Your task to perform on an android device: Find coffee shops on Maps Image 0: 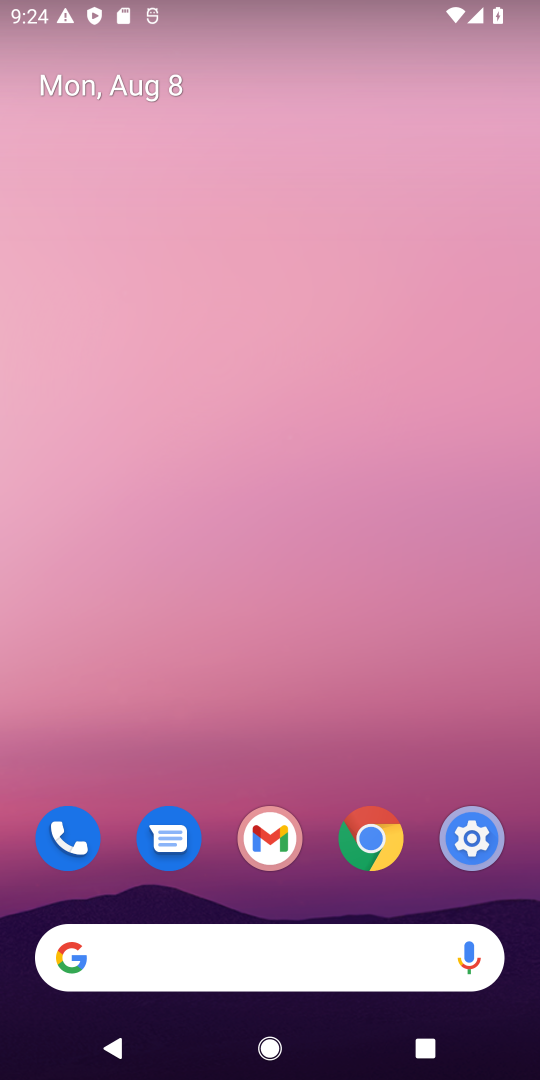
Step 0: press home button
Your task to perform on an android device: Find coffee shops on Maps Image 1: 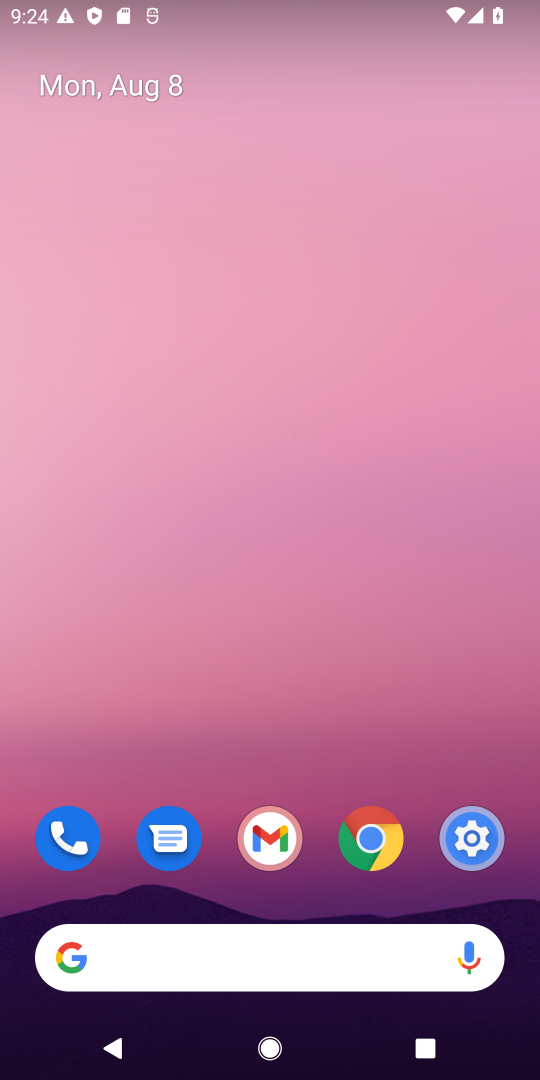
Step 1: drag from (311, 852) to (307, 239)
Your task to perform on an android device: Find coffee shops on Maps Image 2: 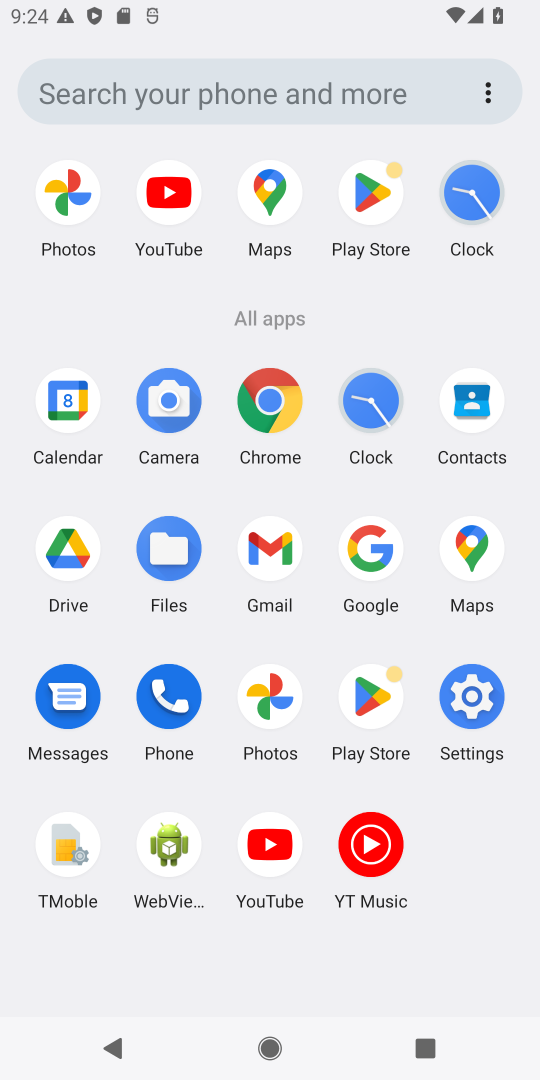
Step 2: click (276, 213)
Your task to perform on an android device: Find coffee shops on Maps Image 3: 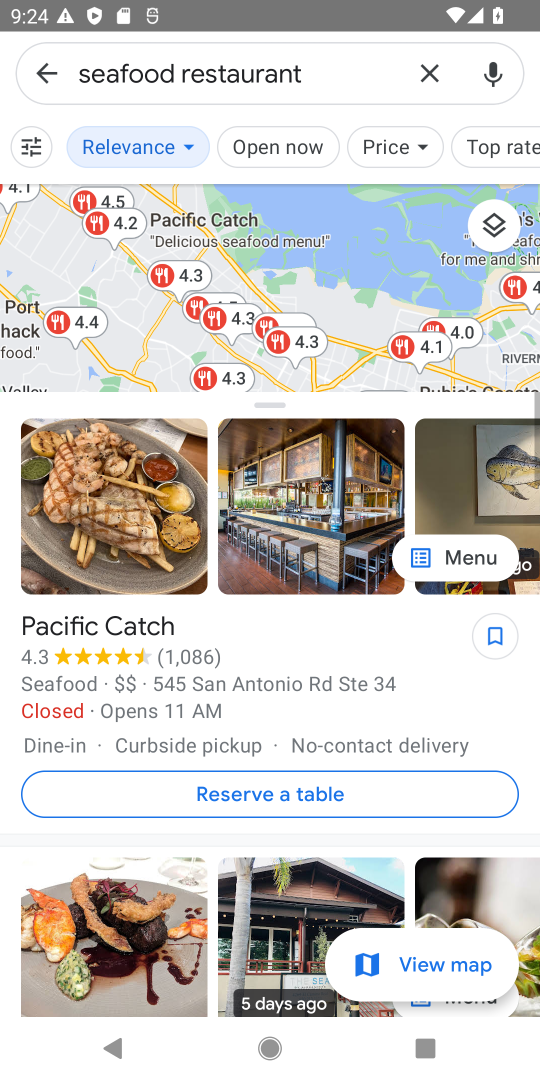
Step 3: click (432, 75)
Your task to perform on an android device: Find coffee shops on Maps Image 4: 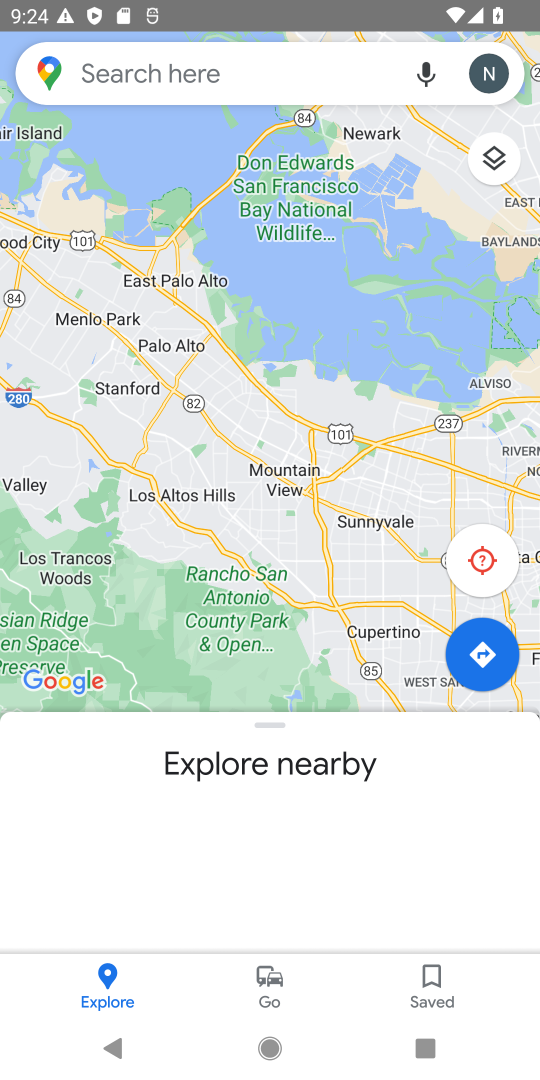
Step 4: type " coffee shops"
Your task to perform on an android device: Find coffee shops on Maps Image 5: 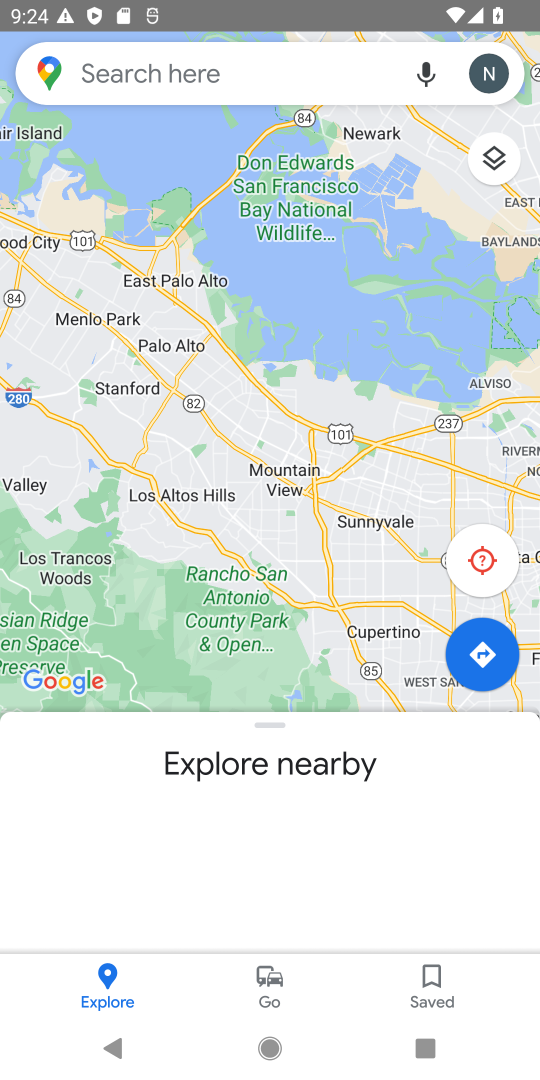
Step 5: press enter
Your task to perform on an android device: Find coffee shops on Maps Image 6: 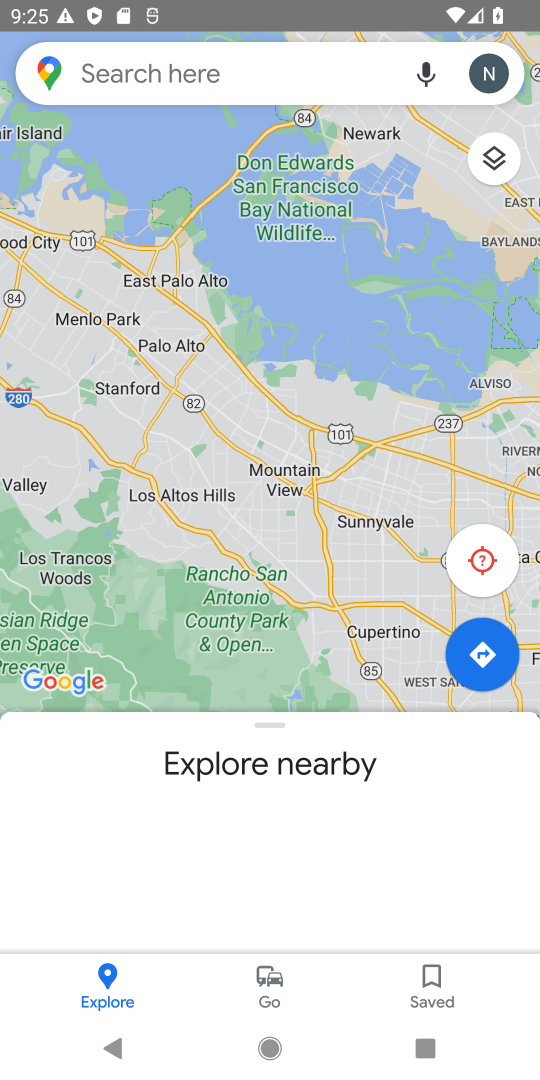
Step 6: click (172, 63)
Your task to perform on an android device: Find coffee shops on Maps Image 7: 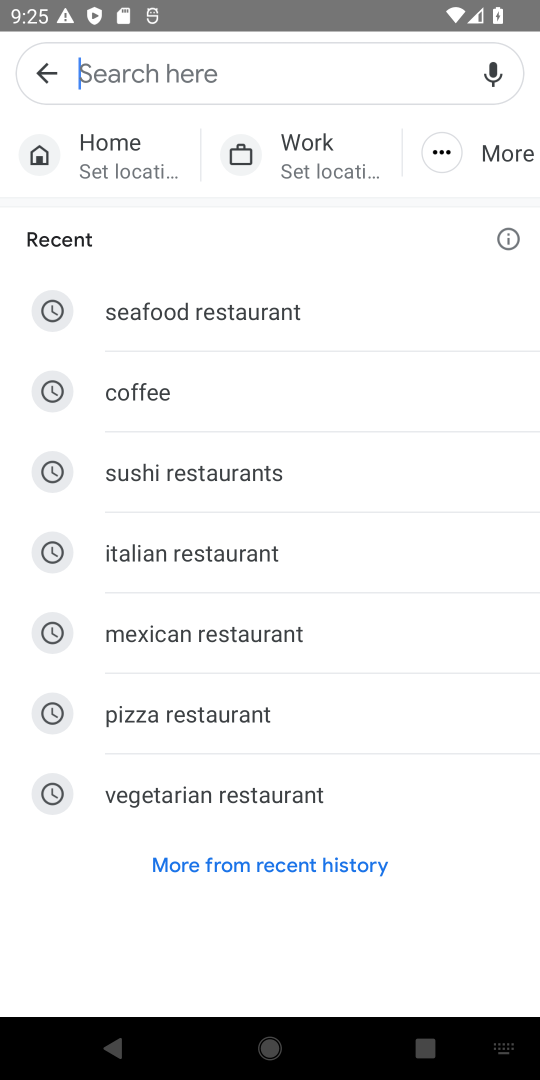
Step 7: type " coffee shops "
Your task to perform on an android device: Find coffee shops on Maps Image 8: 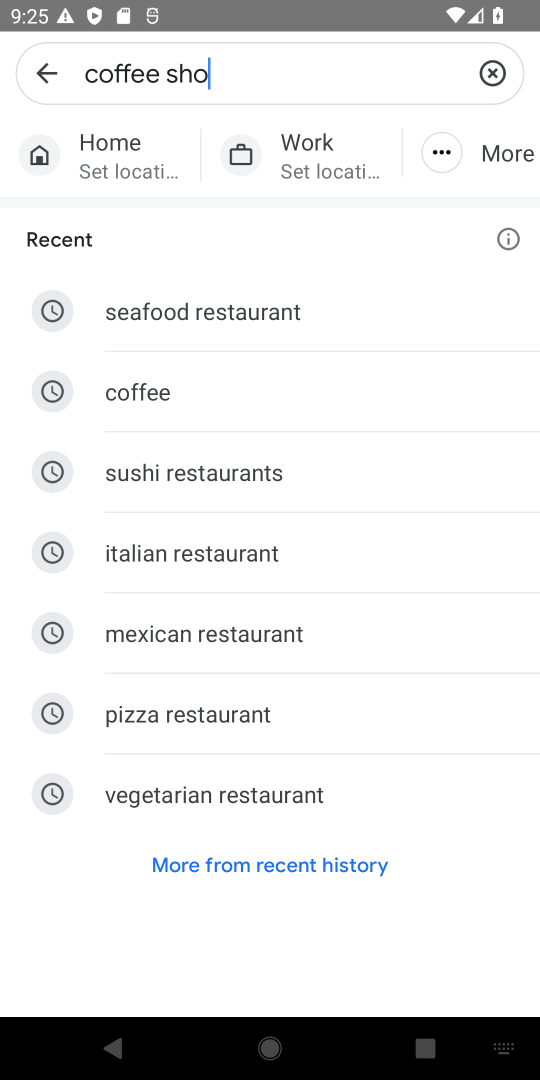
Step 8: press enter
Your task to perform on an android device: Find coffee shops on Maps Image 9: 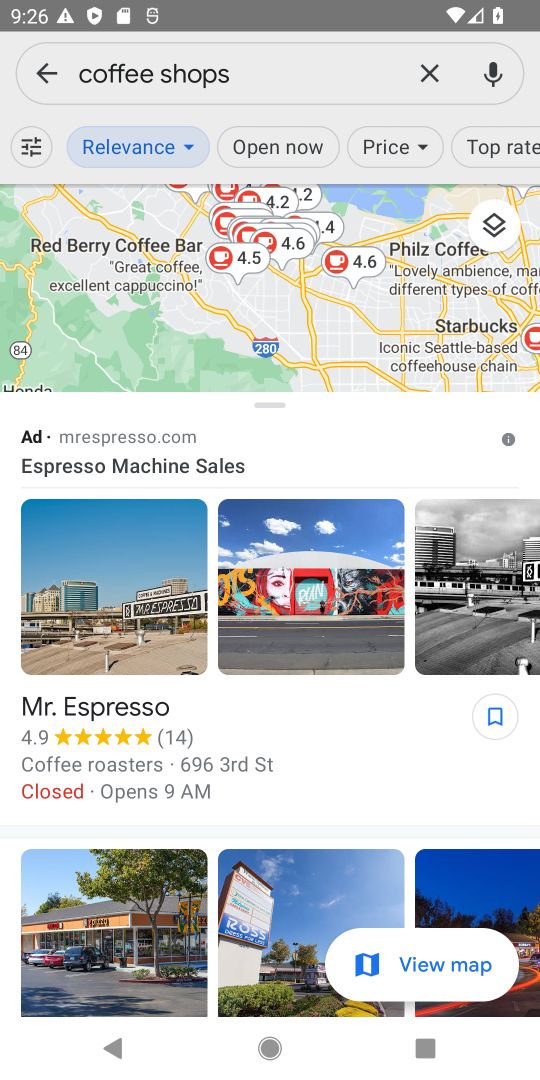
Step 9: task complete